Your task to perform on an android device: change the clock display to analog Image 0: 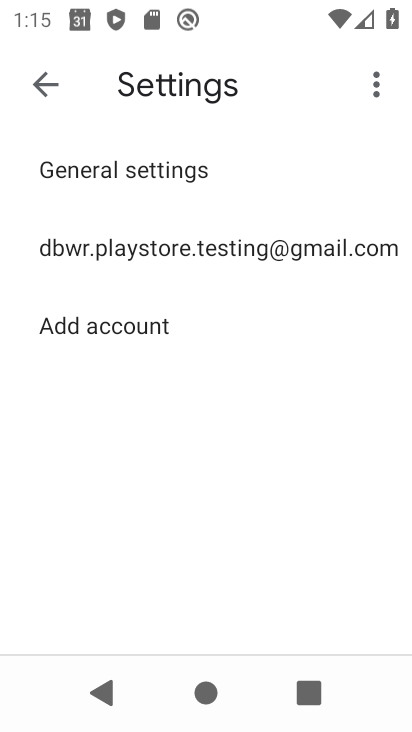
Step 0: press back button
Your task to perform on an android device: change the clock display to analog Image 1: 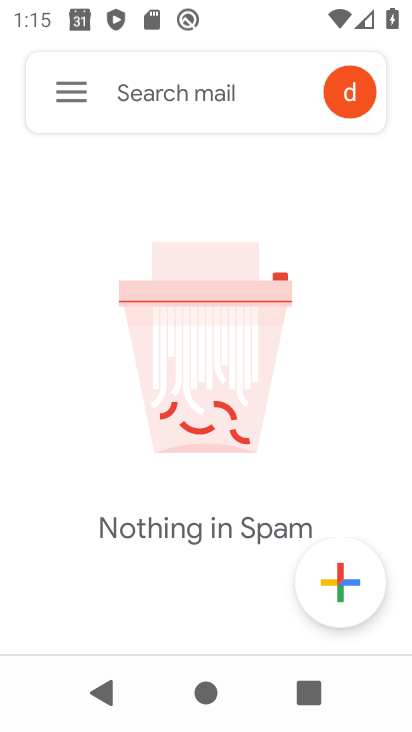
Step 1: press back button
Your task to perform on an android device: change the clock display to analog Image 2: 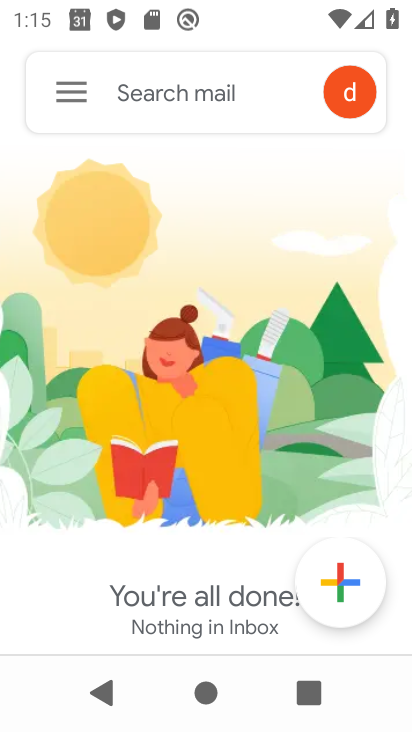
Step 2: press back button
Your task to perform on an android device: change the clock display to analog Image 3: 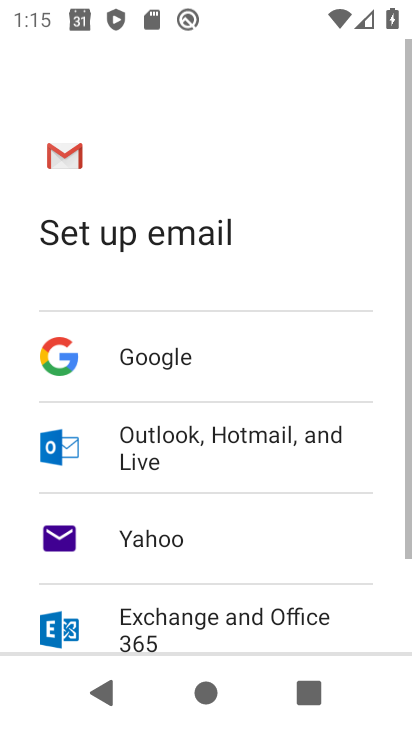
Step 3: press back button
Your task to perform on an android device: change the clock display to analog Image 4: 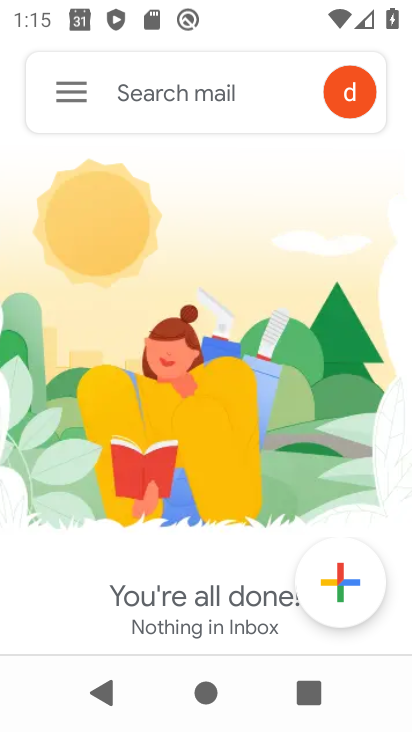
Step 4: press back button
Your task to perform on an android device: change the clock display to analog Image 5: 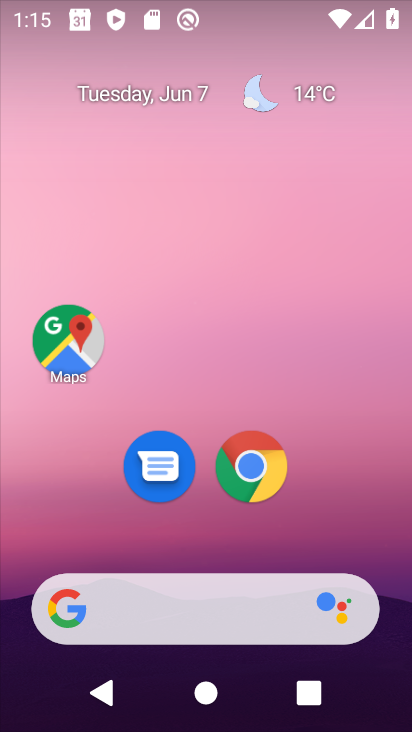
Step 5: drag from (235, 534) to (229, 33)
Your task to perform on an android device: change the clock display to analog Image 6: 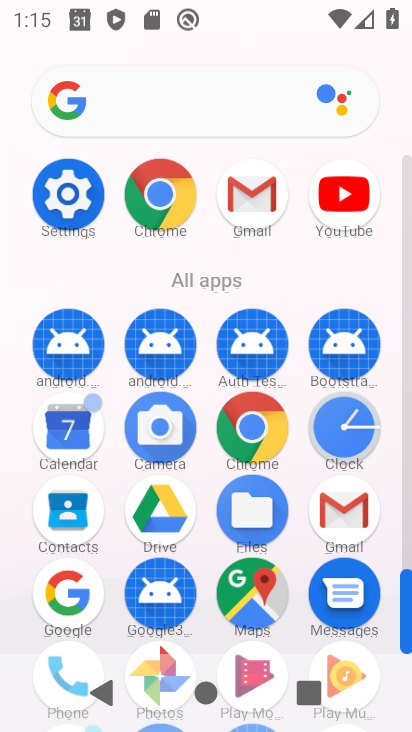
Step 6: click (353, 423)
Your task to perform on an android device: change the clock display to analog Image 7: 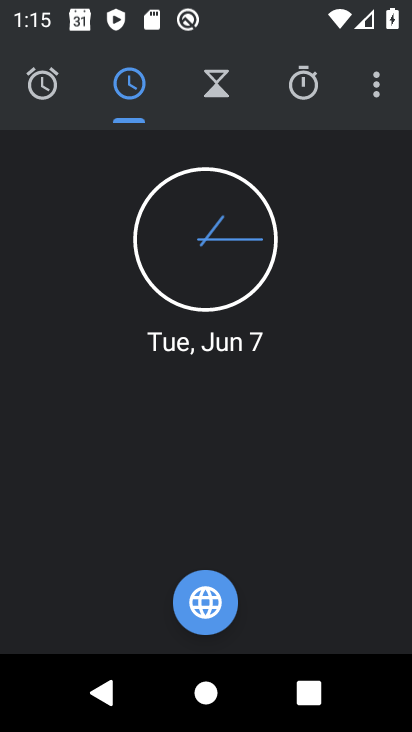
Step 7: click (377, 82)
Your task to perform on an android device: change the clock display to analog Image 8: 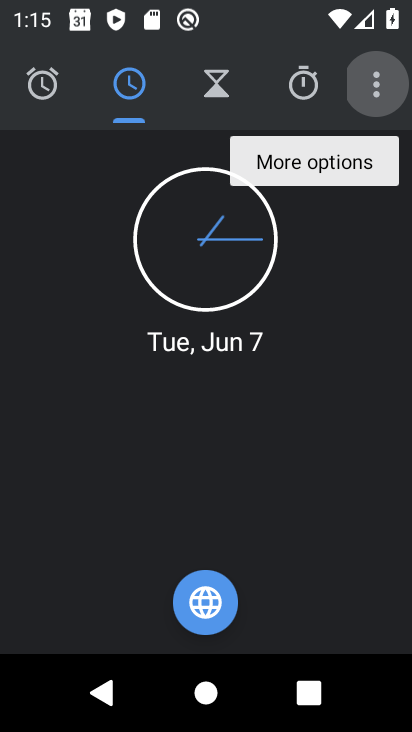
Step 8: click (377, 82)
Your task to perform on an android device: change the clock display to analog Image 9: 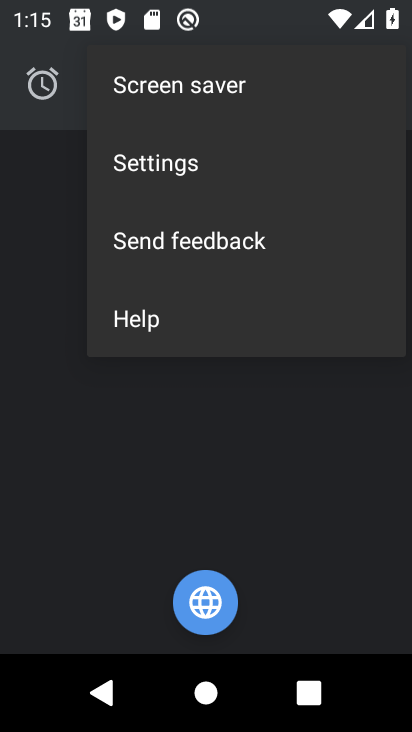
Step 9: click (166, 166)
Your task to perform on an android device: change the clock display to analog Image 10: 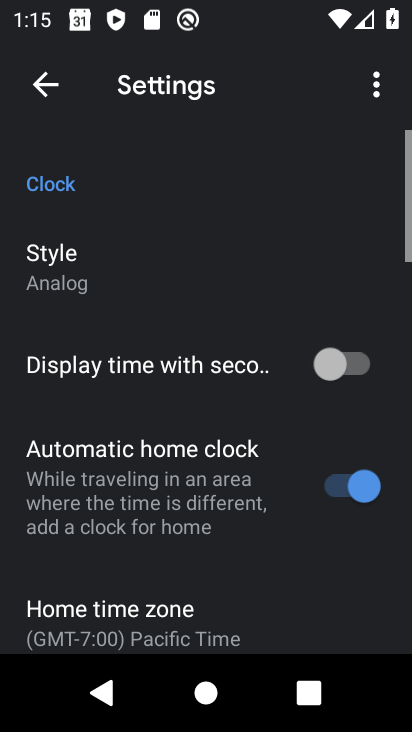
Step 10: click (84, 281)
Your task to perform on an android device: change the clock display to analog Image 11: 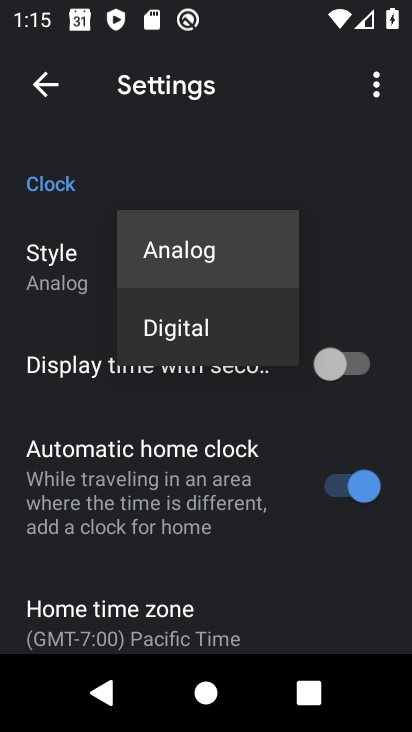
Step 11: click (190, 252)
Your task to perform on an android device: change the clock display to analog Image 12: 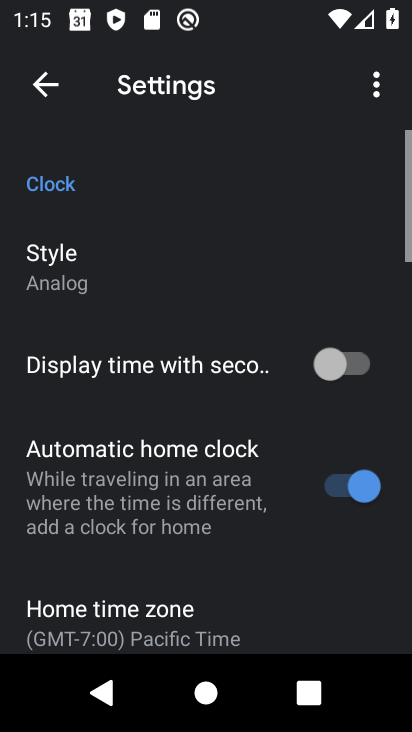
Step 12: task complete